Your task to perform on an android device: Open my contact list Image 0: 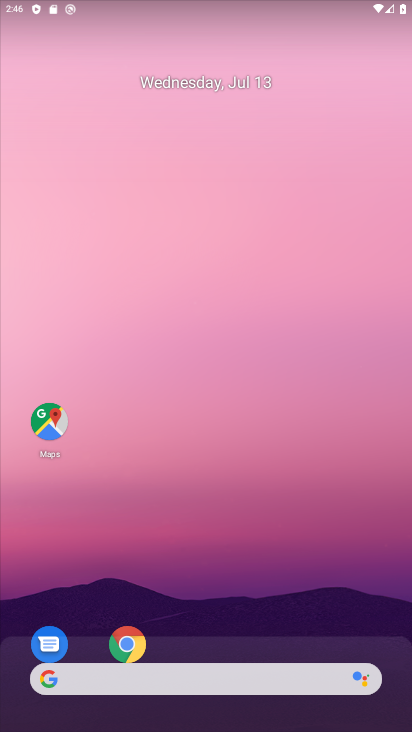
Step 0: drag from (140, 646) to (249, 7)
Your task to perform on an android device: Open my contact list Image 1: 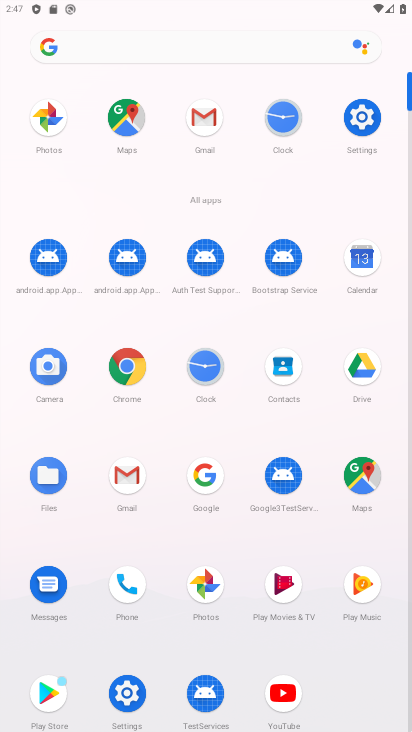
Step 1: click (290, 376)
Your task to perform on an android device: Open my contact list Image 2: 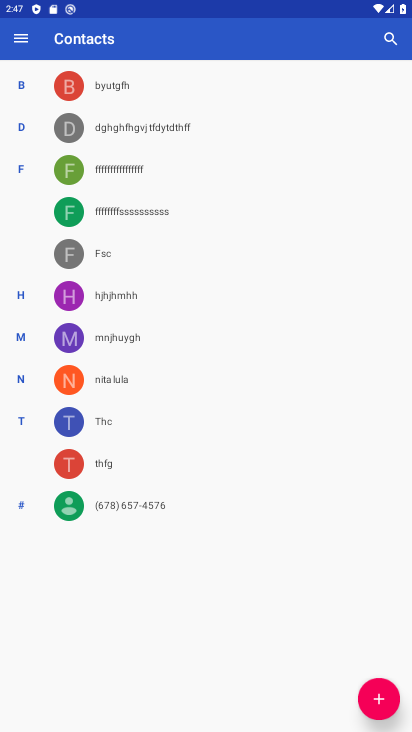
Step 2: task complete